Your task to perform on an android device: Play the last video I watched on Youtube Image 0: 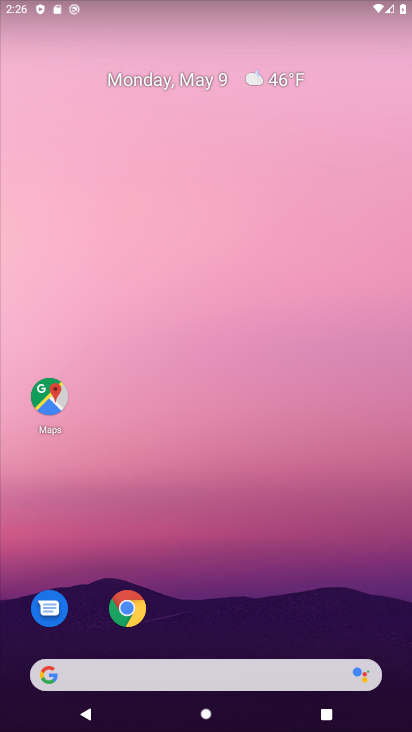
Step 0: drag from (121, 653) to (88, 370)
Your task to perform on an android device: Play the last video I watched on Youtube Image 1: 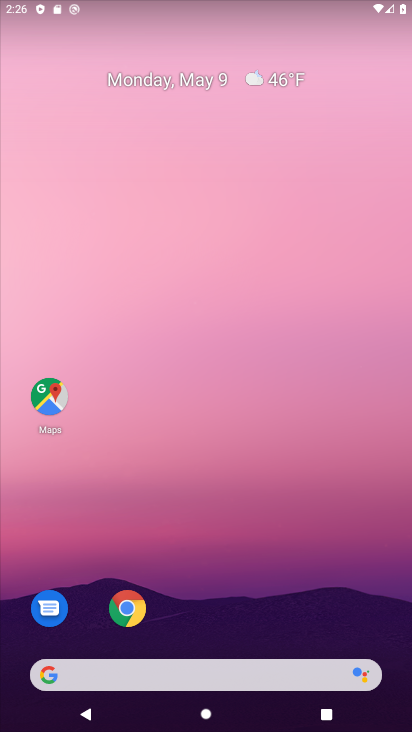
Step 1: drag from (130, 639) to (133, 109)
Your task to perform on an android device: Play the last video I watched on Youtube Image 2: 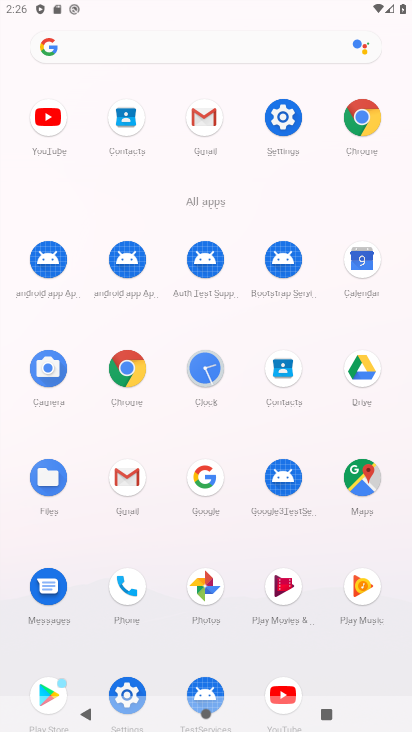
Step 2: click (66, 146)
Your task to perform on an android device: Play the last video I watched on Youtube Image 3: 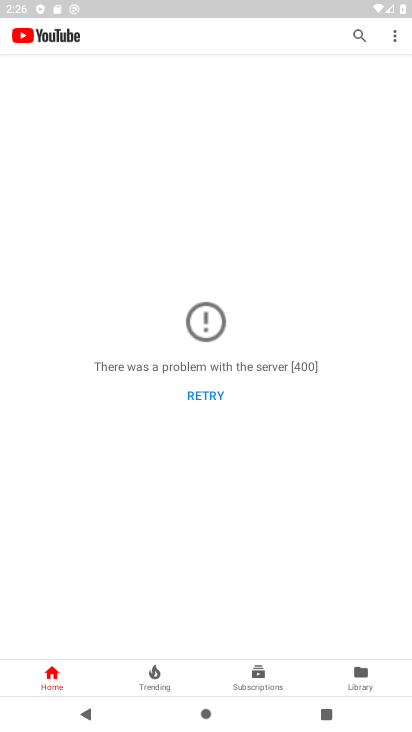
Step 3: click (157, 686)
Your task to perform on an android device: Play the last video I watched on Youtube Image 4: 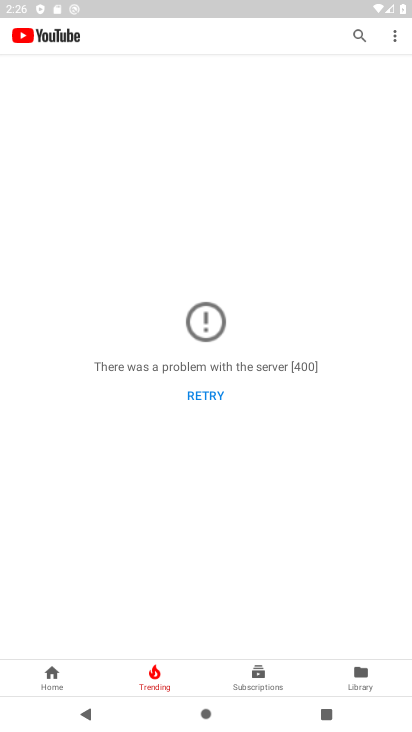
Step 4: task complete